Your task to perform on an android device: Search for vegetarian restaurants on Maps Image 0: 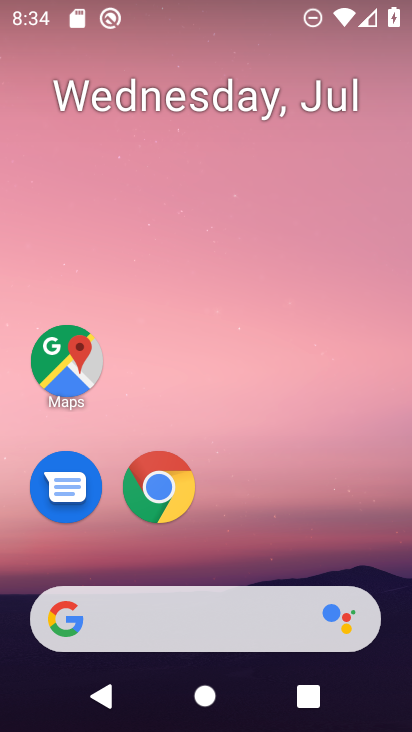
Step 0: drag from (370, 500) to (382, 67)
Your task to perform on an android device: Search for vegetarian restaurants on Maps Image 1: 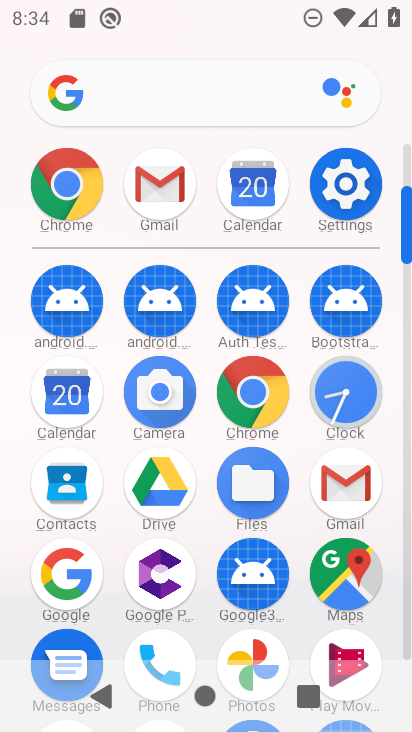
Step 1: click (354, 569)
Your task to perform on an android device: Search for vegetarian restaurants on Maps Image 2: 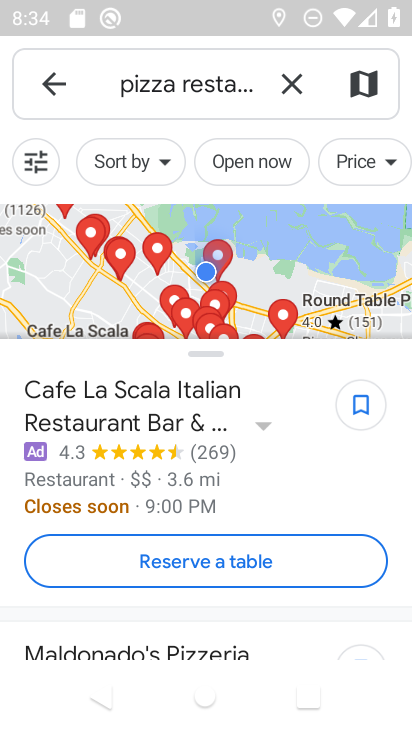
Step 2: press back button
Your task to perform on an android device: Search for vegetarian restaurants on Maps Image 3: 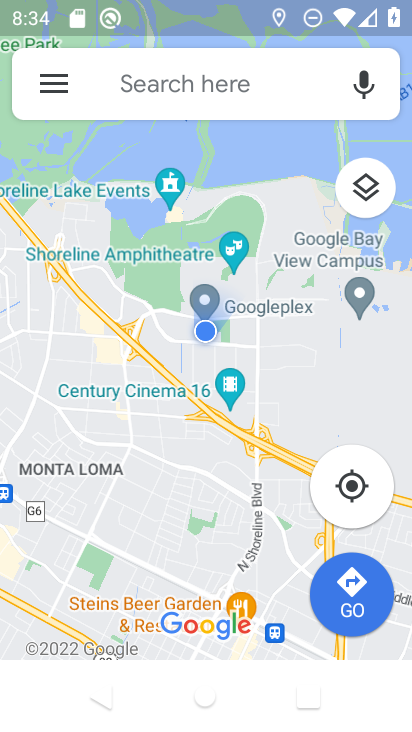
Step 3: click (235, 86)
Your task to perform on an android device: Search for vegetarian restaurants on Maps Image 4: 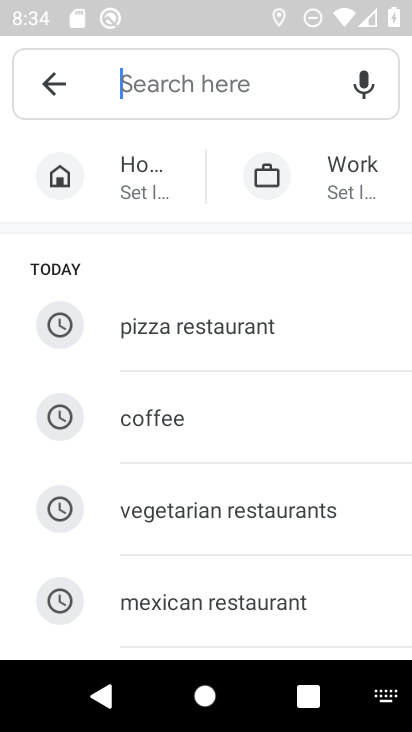
Step 4: type "vegetrain restaurants"
Your task to perform on an android device: Search for vegetarian restaurants on Maps Image 5: 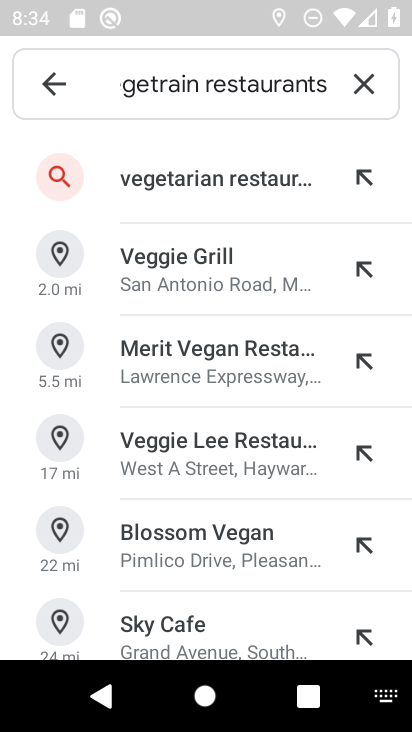
Step 5: click (311, 192)
Your task to perform on an android device: Search for vegetarian restaurants on Maps Image 6: 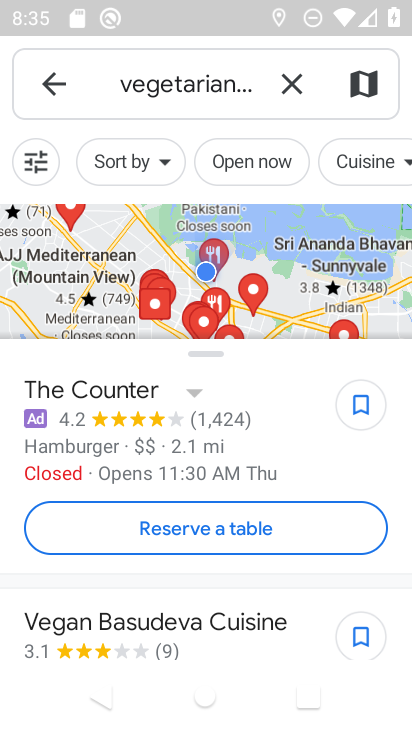
Step 6: task complete